Your task to perform on an android device: What's the weather today? Image 0: 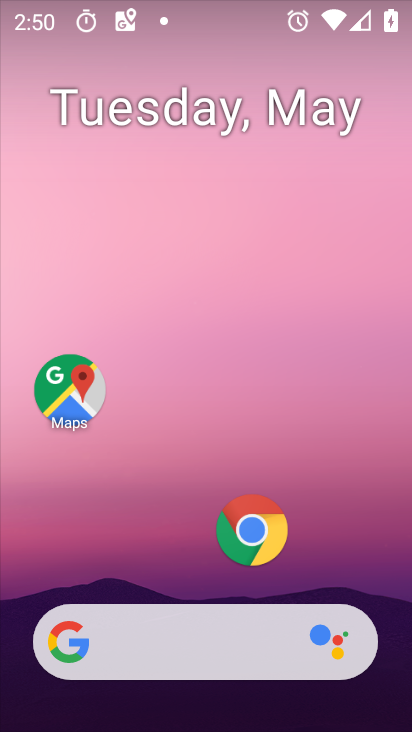
Step 0: drag from (205, 588) to (217, 14)
Your task to perform on an android device: What's the weather today? Image 1: 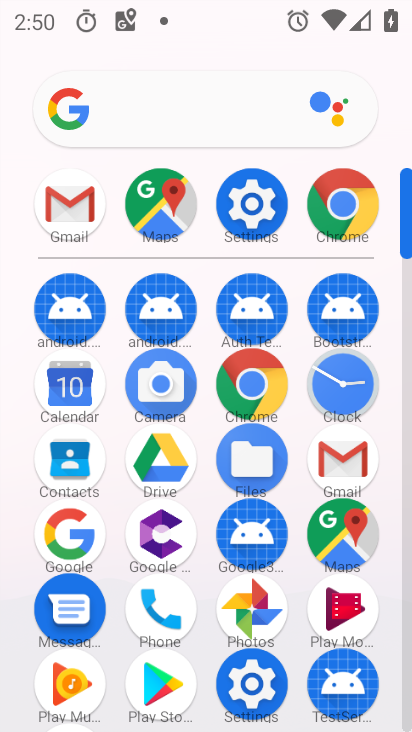
Step 1: click (53, 531)
Your task to perform on an android device: What's the weather today? Image 2: 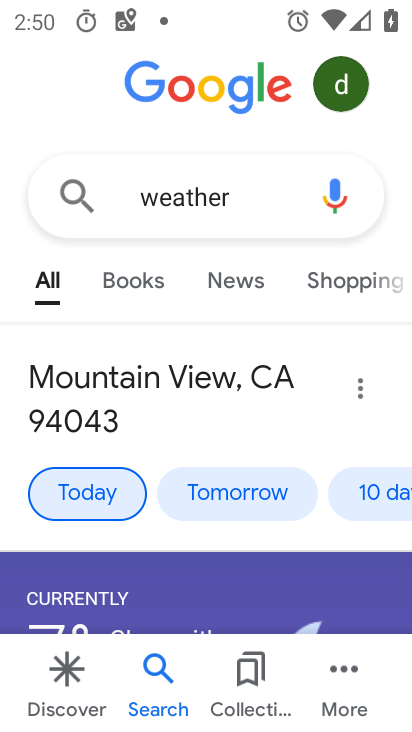
Step 2: click (56, 491)
Your task to perform on an android device: What's the weather today? Image 3: 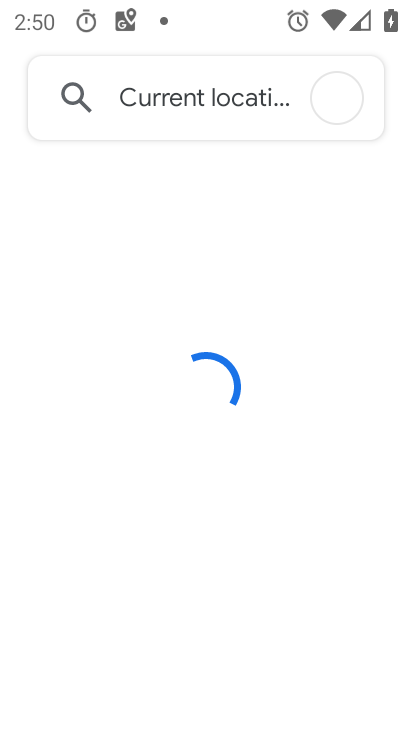
Step 3: task complete